Your task to perform on an android device: Is it going to rain this weekend? Image 0: 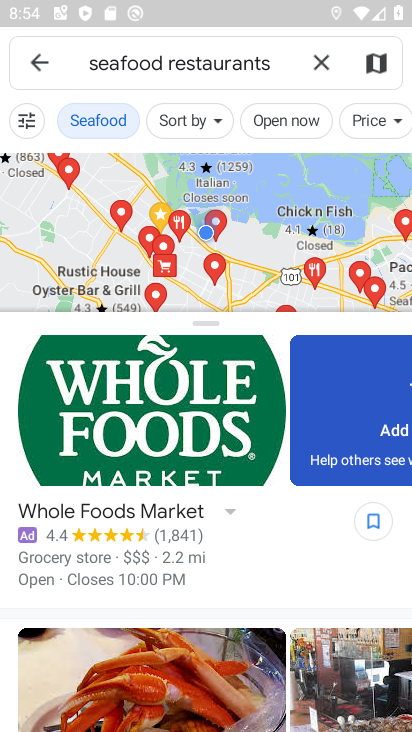
Step 0: press home button
Your task to perform on an android device: Is it going to rain this weekend? Image 1: 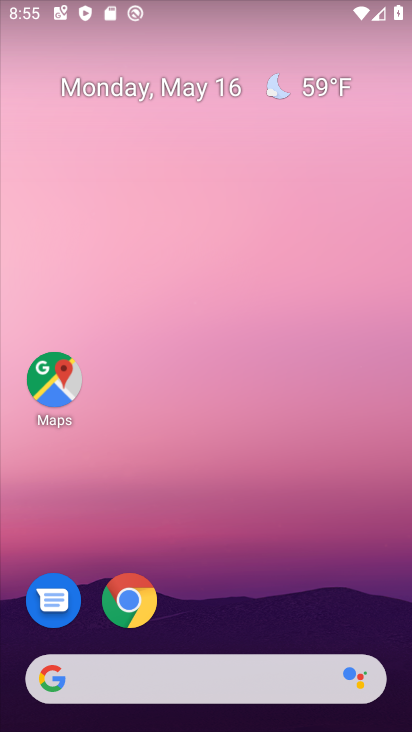
Step 1: drag from (138, 612) to (156, 290)
Your task to perform on an android device: Is it going to rain this weekend? Image 2: 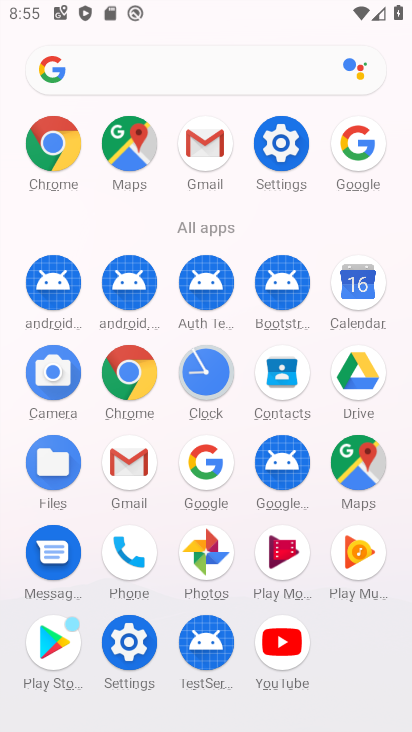
Step 2: click (213, 462)
Your task to perform on an android device: Is it going to rain this weekend? Image 3: 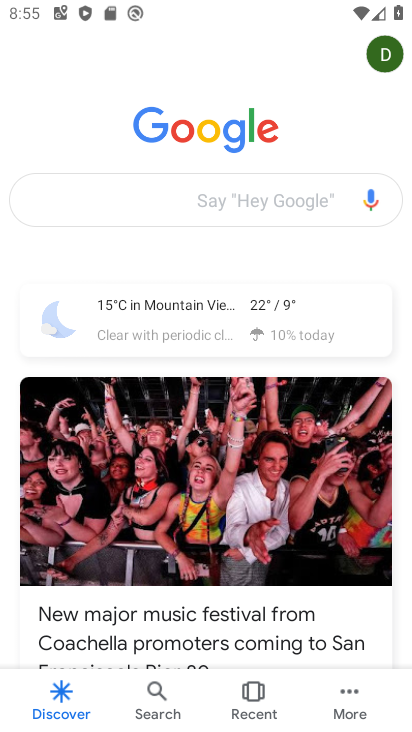
Step 3: click (118, 193)
Your task to perform on an android device: Is it going to rain this weekend? Image 4: 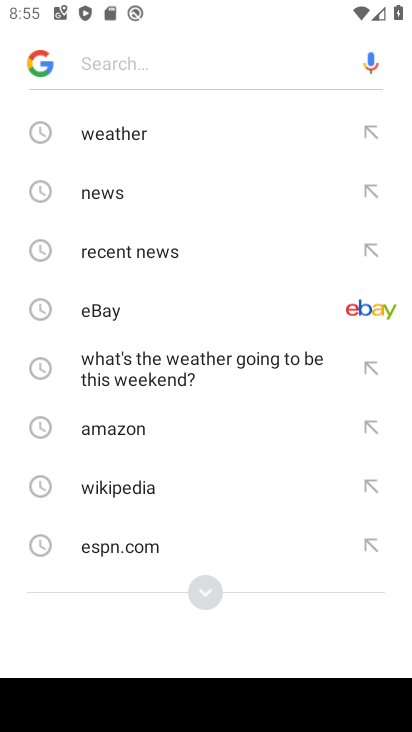
Step 4: type "is it going to rain this weekend?"
Your task to perform on an android device: Is it going to rain this weekend? Image 5: 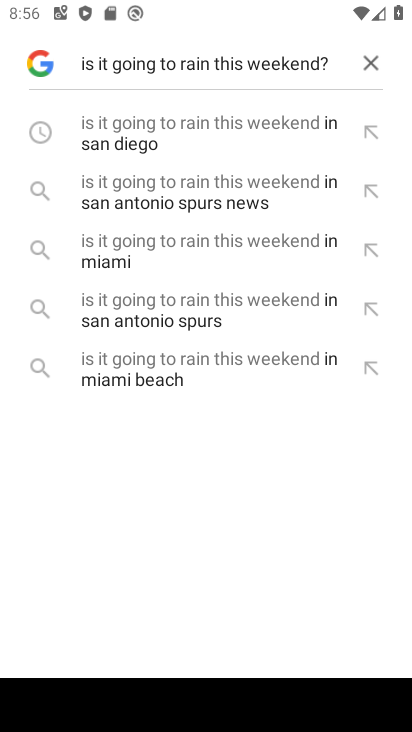
Step 5: click (138, 141)
Your task to perform on an android device: Is it going to rain this weekend? Image 6: 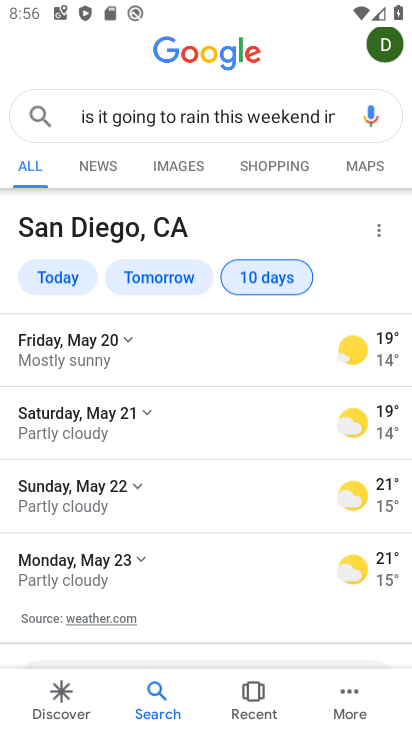
Step 6: task complete